Your task to perform on an android device: Open location settings Image 0: 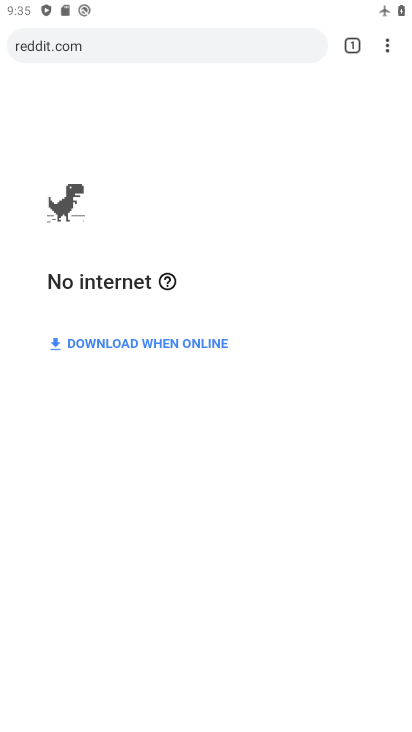
Step 0: press home button
Your task to perform on an android device: Open location settings Image 1: 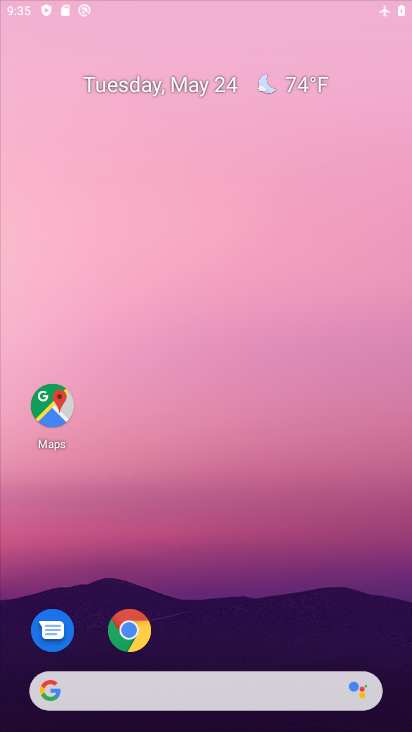
Step 1: drag from (357, 556) to (366, 2)
Your task to perform on an android device: Open location settings Image 2: 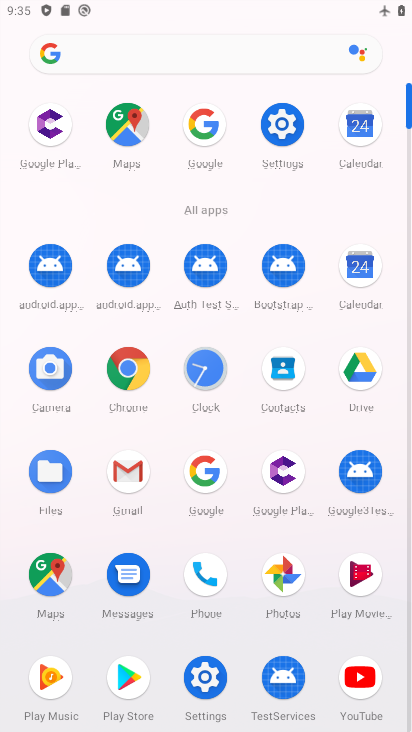
Step 2: click (281, 210)
Your task to perform on an android device: Open location settings Image 3: 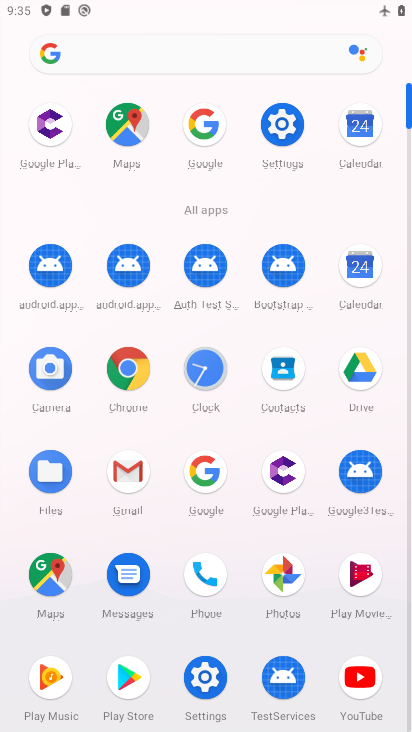
Step 3: click (287, 150)
Your task to perform on an android device: Open location settings Image 4: 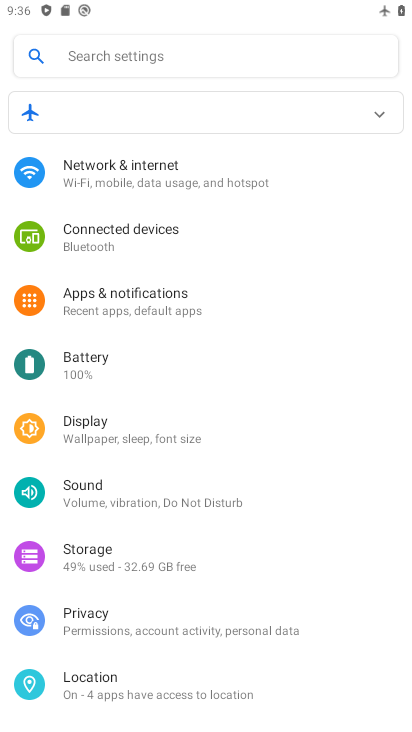
Step 4: click (186, 678)
Your task to perform on an android device: Open location settings Image 5: 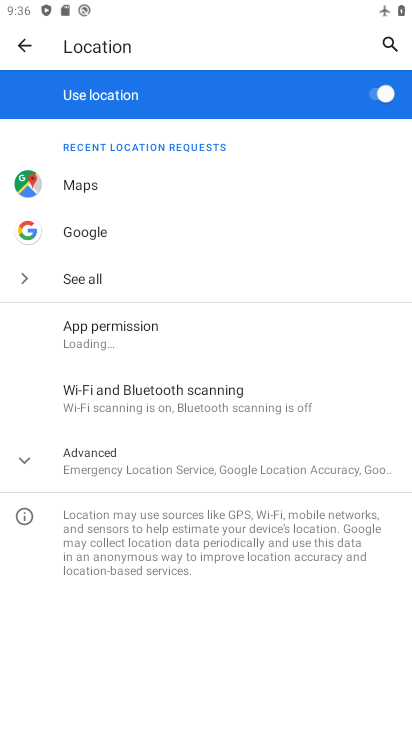
Step 5: task complete